Your task to perform on an android device: Search for the best way to make a resume. Image 0: 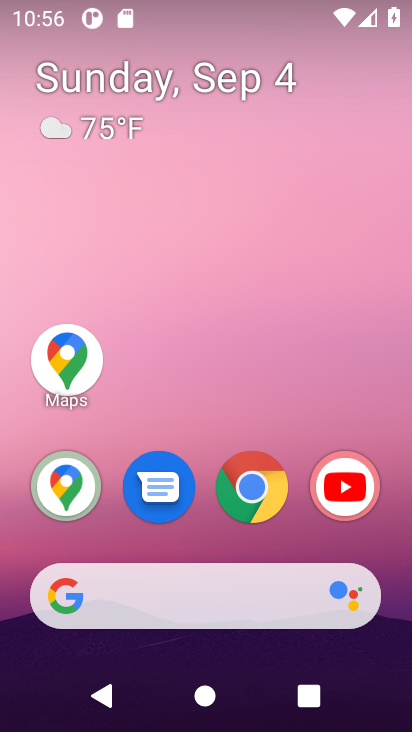
Step 0: task complete